Your task to perform on an android device: turn on showing notifications on the lock screen Image 0: 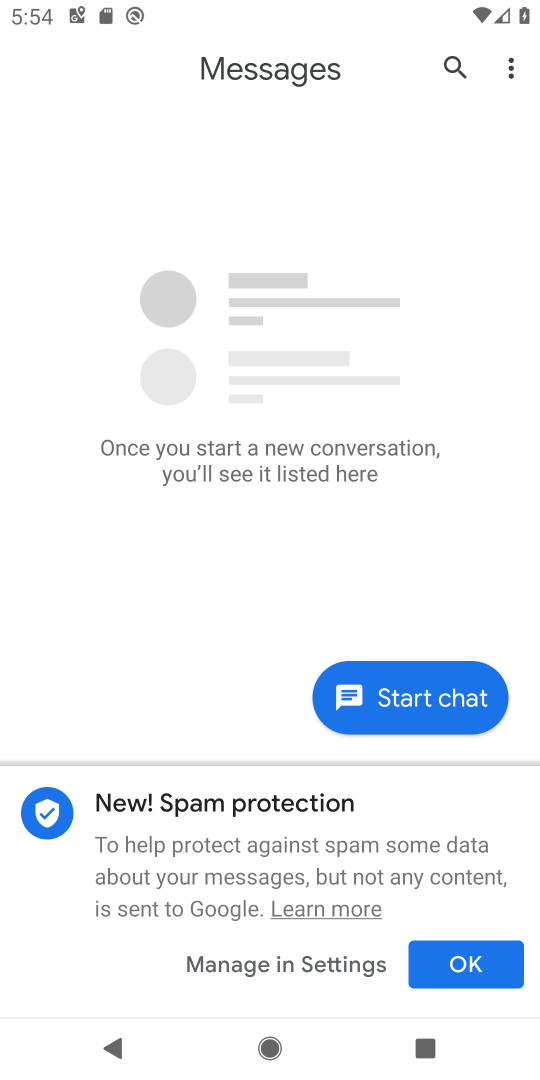
Step 0: press home button
Your task to perform on an android device: turn on showing notifications on the lock screen Image 1: 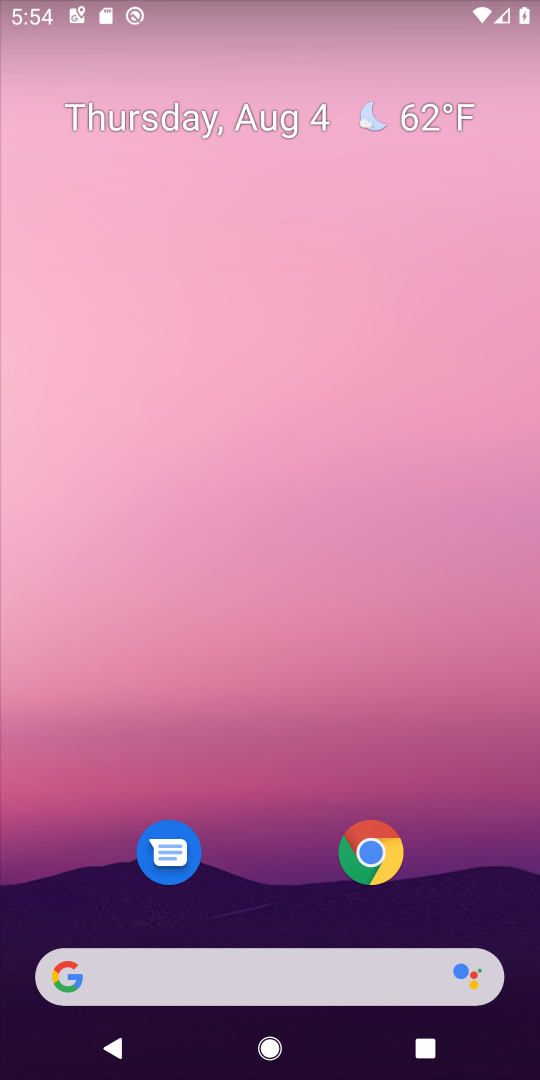
Step 1: drag from (276, 923) to (276, 115)
Your task to perform on an android device: turn on showing notifications on the lock screen Image 2: 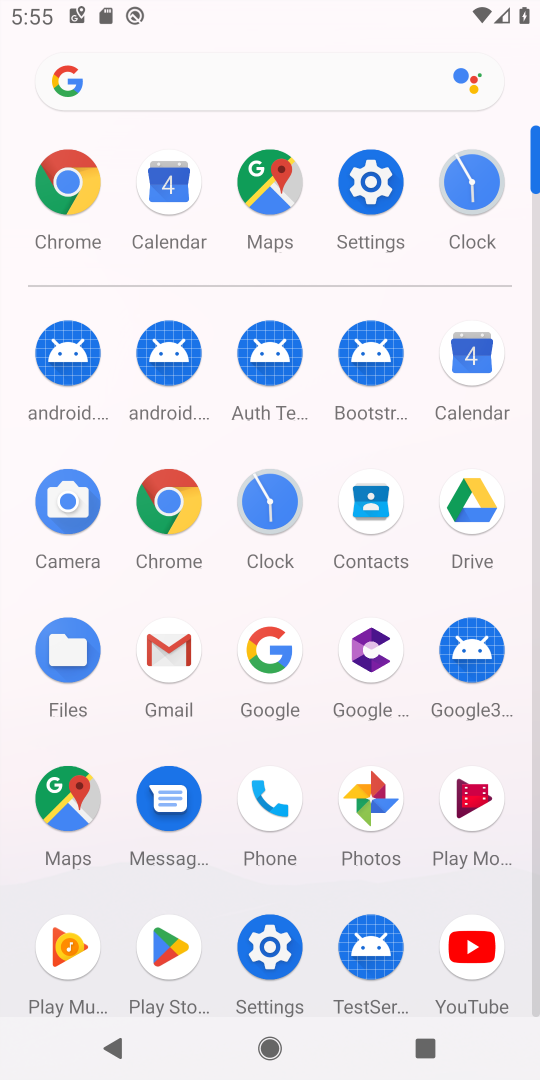
Step 2: click (381, 178)
Your task to perform on an android device: turn on showing notifications on the lock screen Image 3: 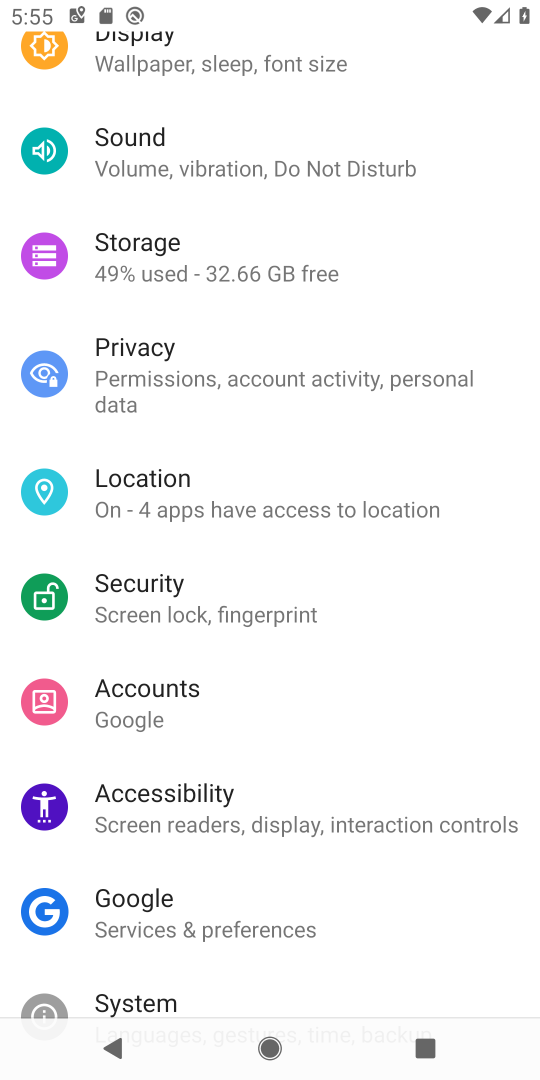
Step 3: drag from (149, 216) to (165, 701)
Your task to perform on an android device: turn on showing notifications on the lock screen Image 4: 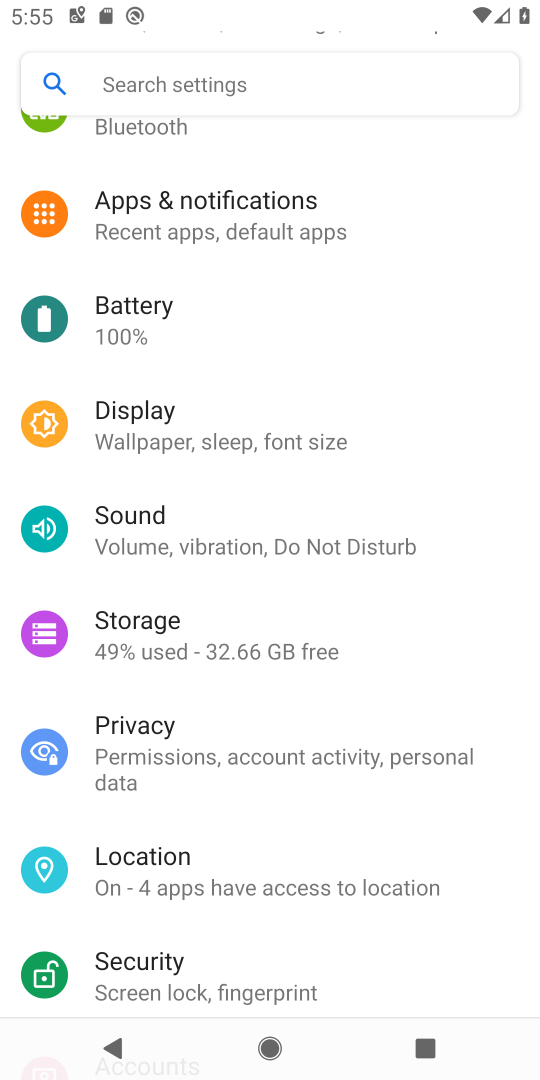
Step 4: click (203, 216)
Your task to perform on an android device: turn on showing notifications on the lock screen Image 5: 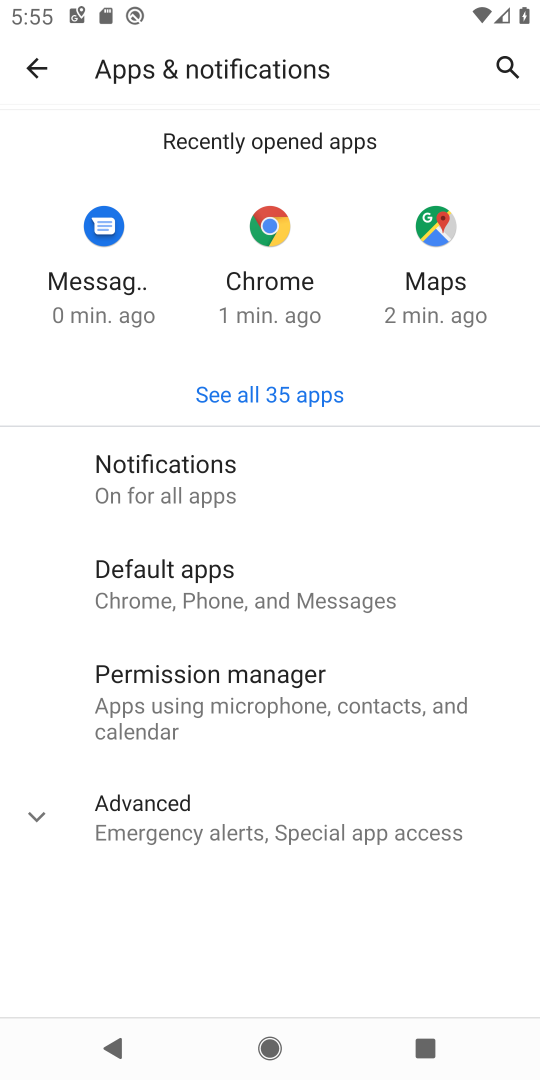
Step 5: click (170, 486)
Your task to perform on an android device: turn on showing notifications on the lock screen Image 6: 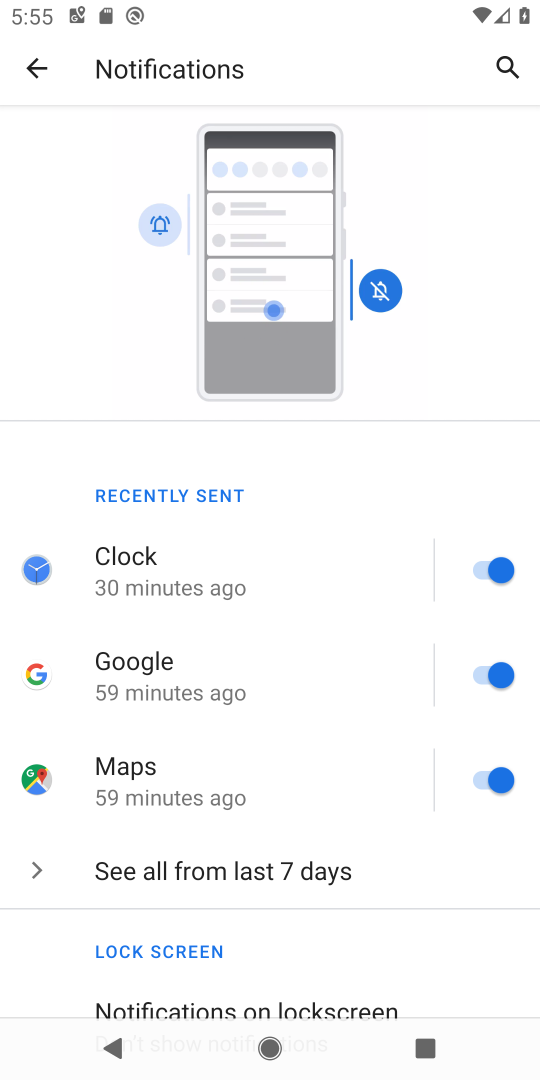
Step 6: drag from (187, 916) to (189, 596)
Your task to perform on an android device: turn on showing notifications on the lock screen Image 7: 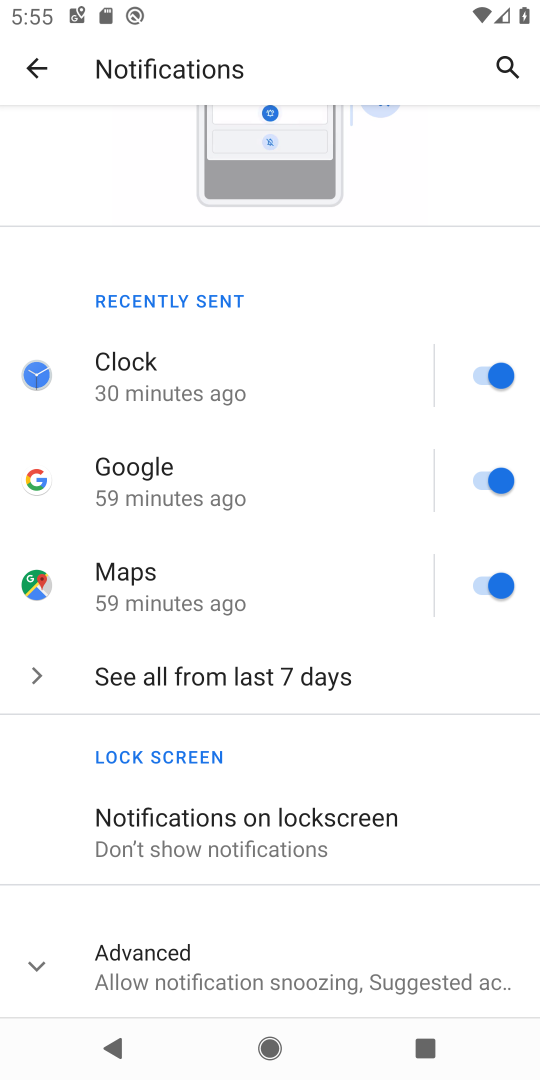
Step 7: drag from (230, 964) to (230, 644)
Your task to perform on an android device: turn on showing notifications on the lock screen Image 8: 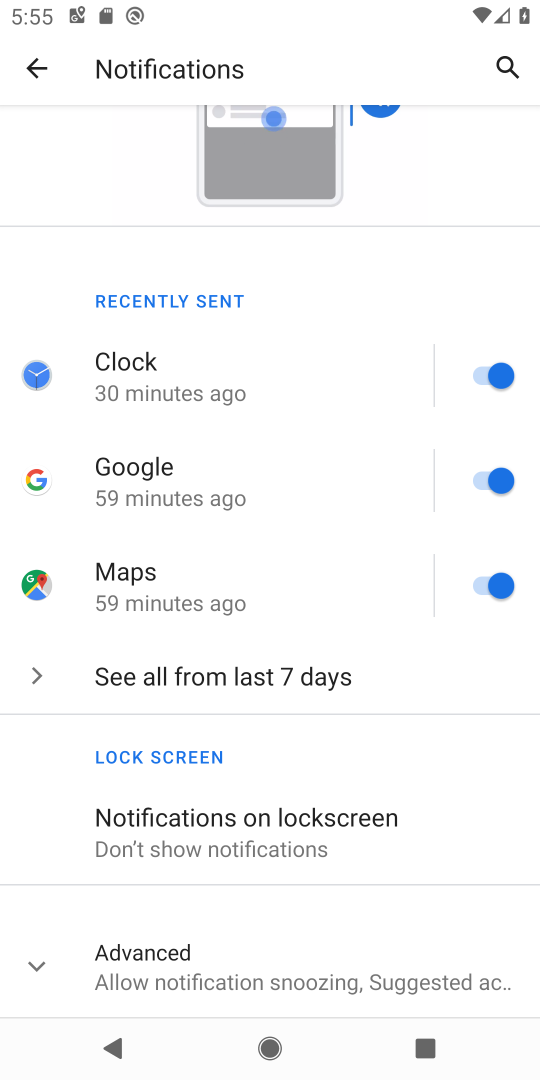
Step 8: click (172, 838)
Your task to perform on an android device: turn on showing notifications on the lock screen Image 9: 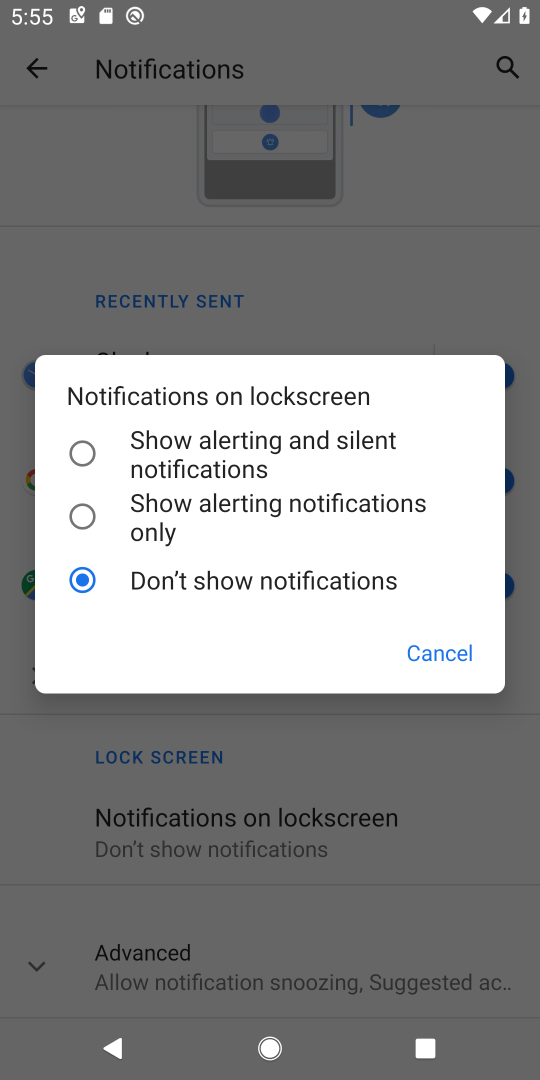
Step 9: click (83, 470)
Your task to perform on an android device: turn on showing notifications on the lock screen Image 10: 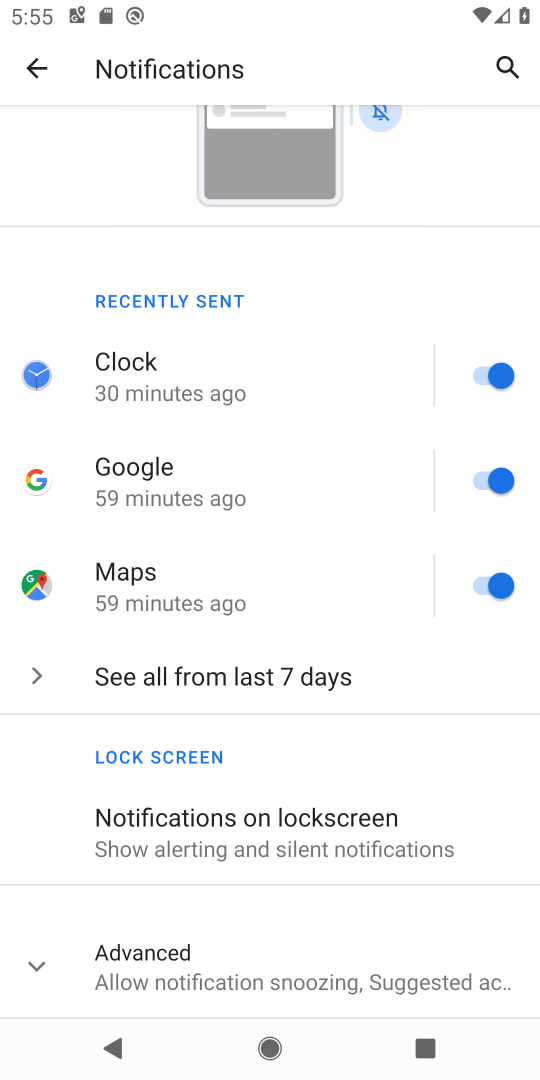
Step 10: task complete